Your task to perform on an android device: change the upload size in google photos Image 0: 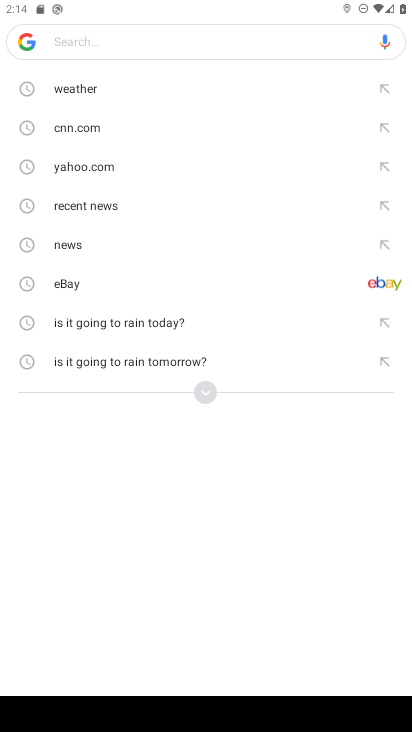
Step 0: press home button
Your task to perform on an android device: change the upload size in google photos Image 1: 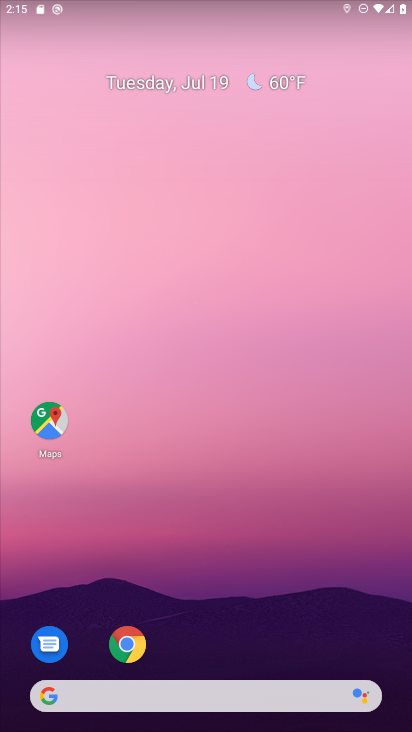
Step 1: drag from (218, 677) to (134, 3)
Your task to perform on an android device: change the upload size in google photos Image 2: 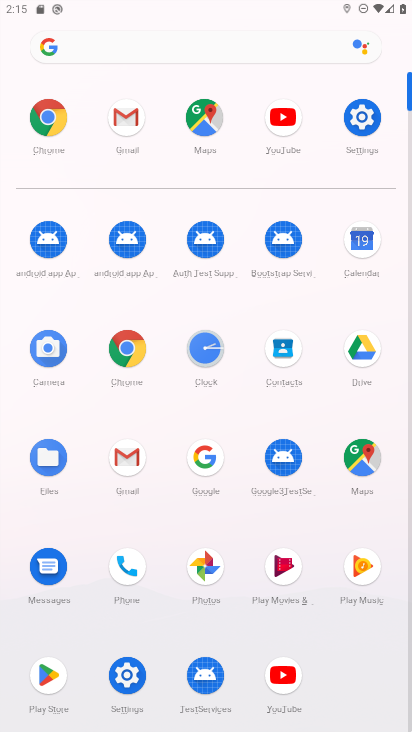
Step 2: click (207, 567)
Your task to perform on an android device: change the upload size in google photos Image 3: 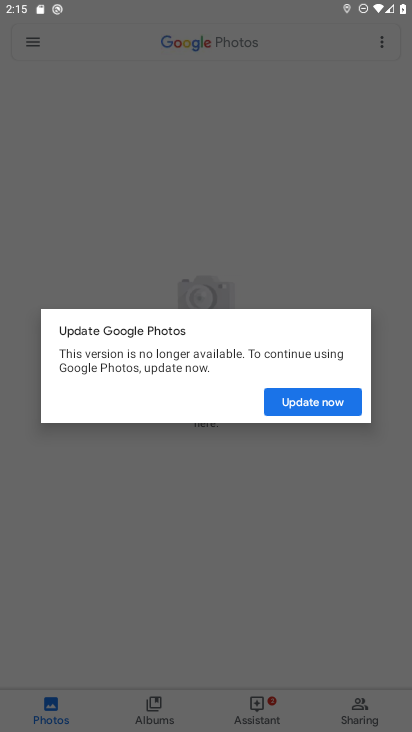
Step 3: click (296, 404)
Your task to perform on an android device: change the upload size in google photos Image 4: 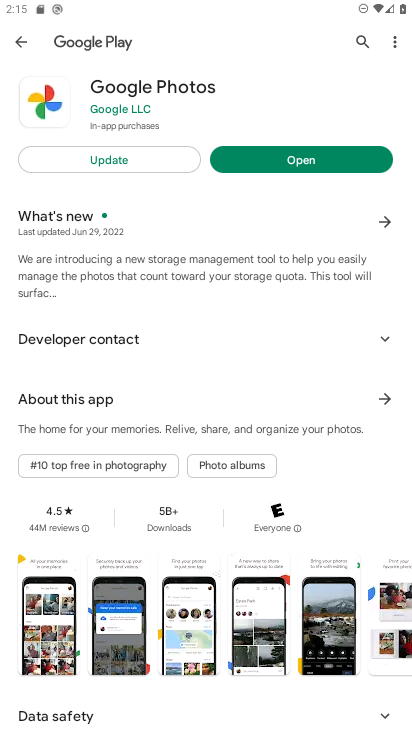
Step 4: click (166, 163)
Your task to perform on an android device: change the upload size in google photos Image 5: 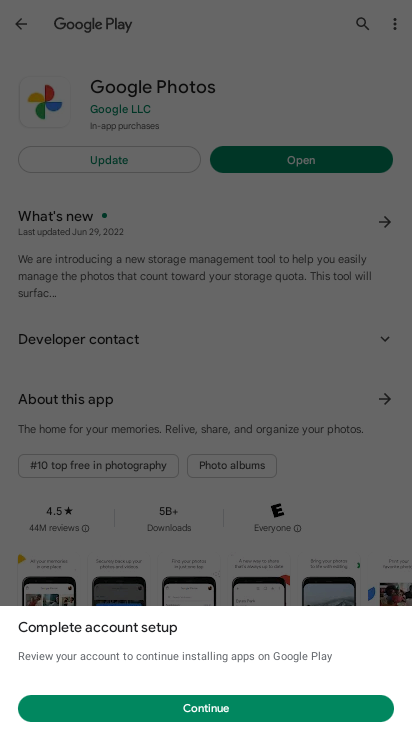
Step 5: click (274, 713)
Your task to perform on an android device: change the upload size in google photos Image 6: 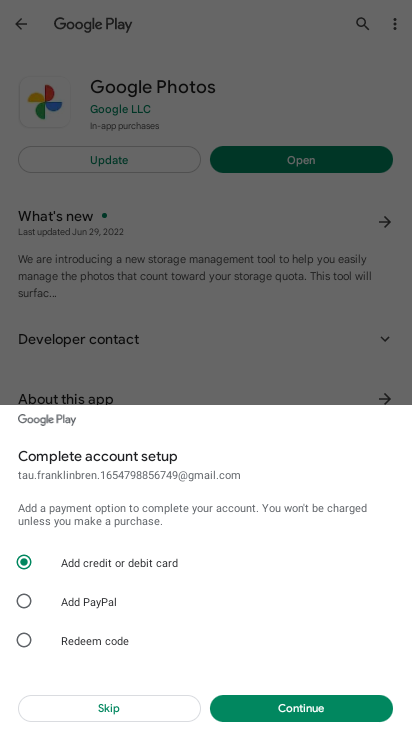
Step 6: click (263, 709)
Your task to perform on an android device: change the upload size in google photos Image 7: 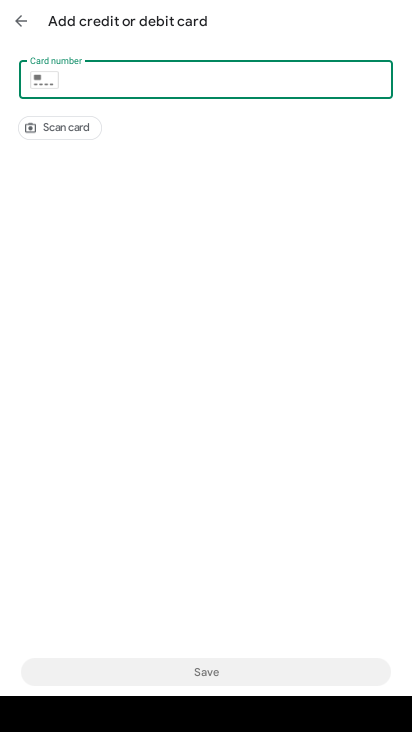
Step 7: click (24, 20)
Your task to perform on an android device: change the upload size in google photos Image 8: 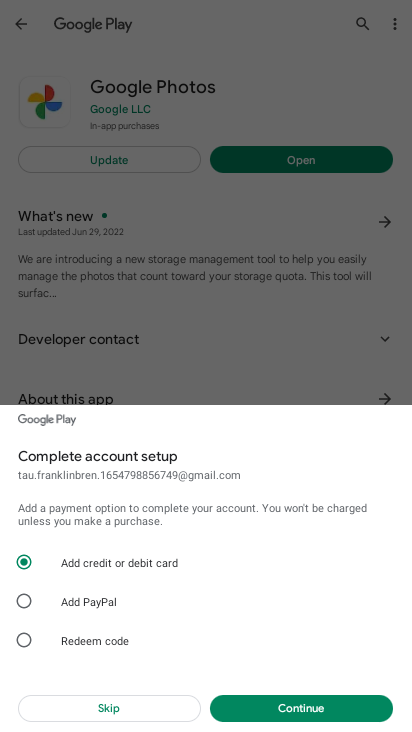
Step 8: click (107, 700)
Your task to perform on an android device: change the upload size in google photos Image 9: 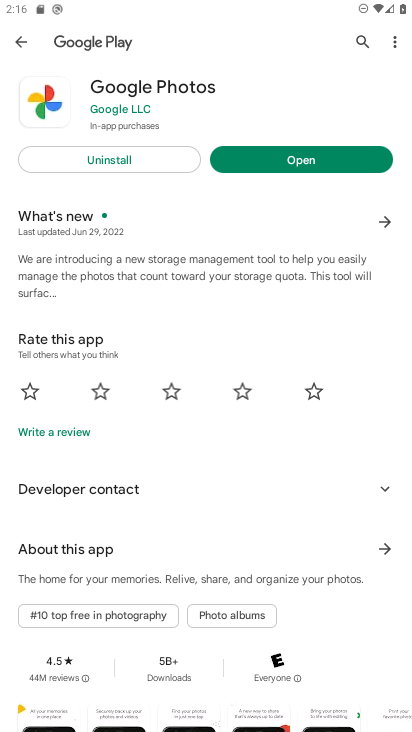
Step 9: click (312, 157)
Your task to perform on an android device: change the upload size in google photos Image 10: 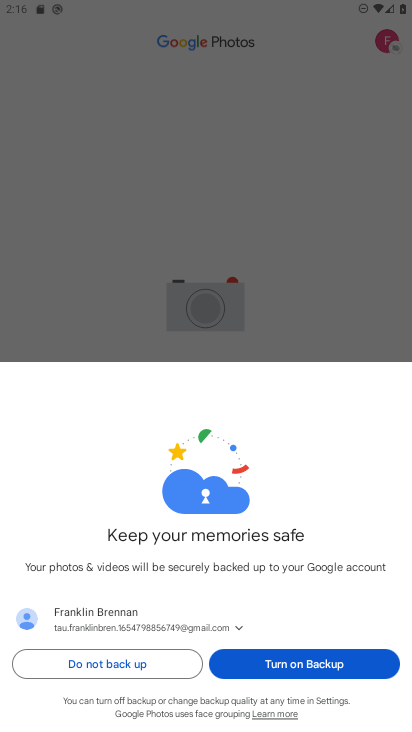
Step 10: drag from (139, 617) to (87, 435)
Your task to perform on an android device: change the upload size in google photos Image 11: 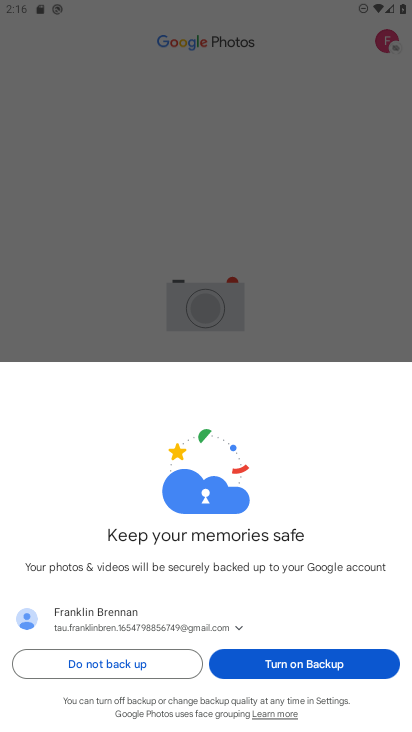
Step 11: click (233, 655)
Your task to perform on an android device: change the upload size in google photos Image 12: 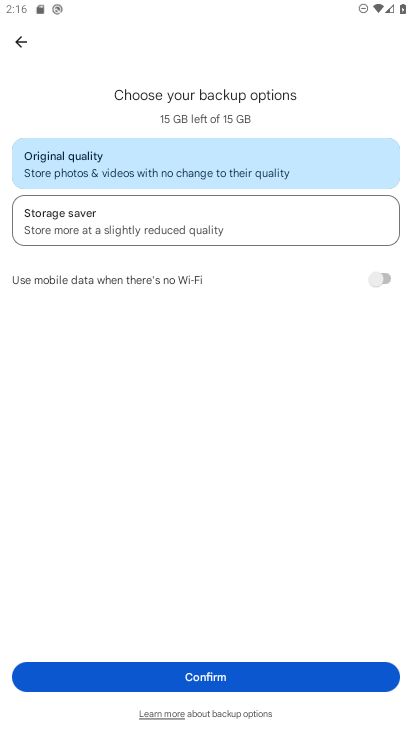
Step 12: click (115, 225)
Your task to perform on an android device: change the upload size in google photos Image 13: 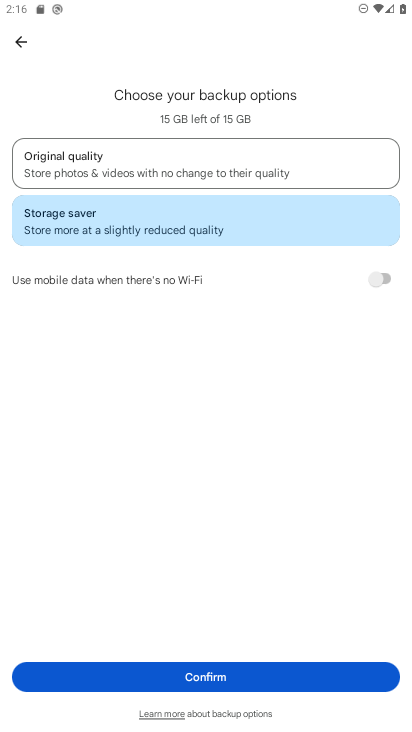
Step 13: click (98, 157)
Your task to perform on an android device: change the upload size in google photos Image 14: 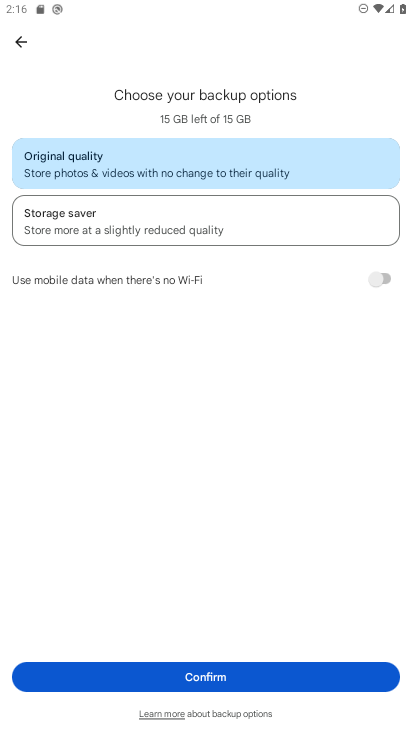
Step 14: click (98, 157)
Your task to perform on an android device: change the upload size in google photos Image 15: 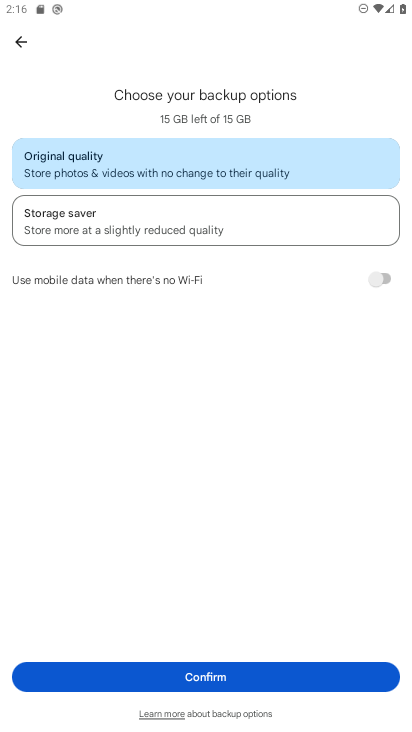
Step 15: click (98, 157)
Your task to perform on an android device: change the upload size in google photos Image 16: 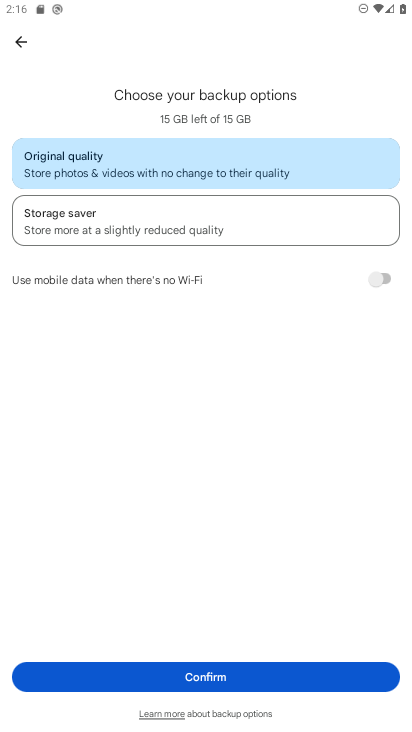
Step 16: click (135, 217)
Your task to perform on an android device: change the upload size in google photos Image 17: 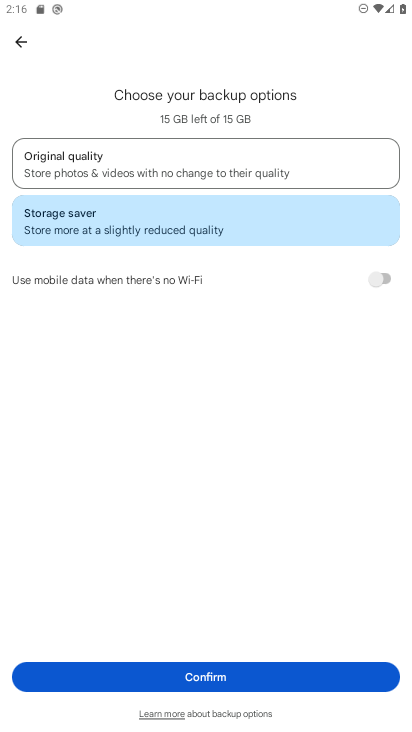
Step 17: task complete